Your task to perform on an android device: Open the calendar app, open the side menu, and click the "Day" option Image 0: 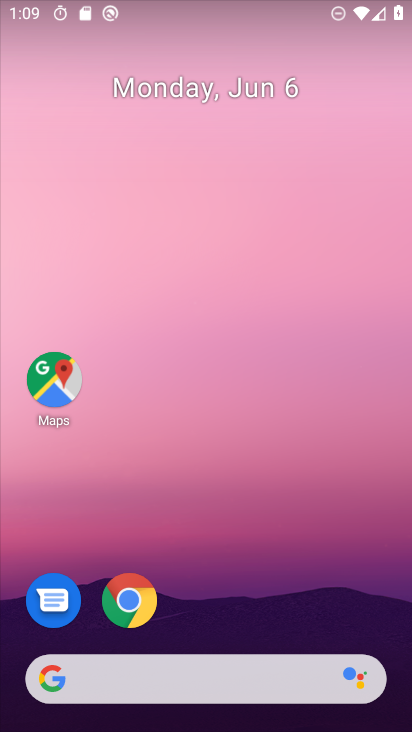
Step 0: drag from (219, 628) to (193, 162)
Your task to perform on an android device: Open the calendar app, open the side menu, and click the "Day" option Image 1: 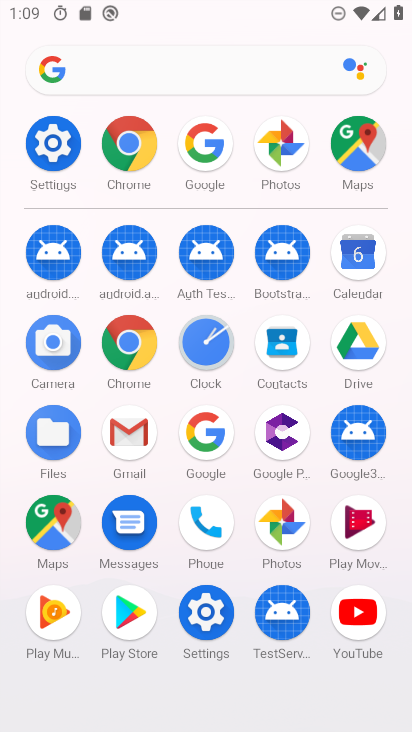
Step 1: click (341, 271)
Your task to perform on an android device: Open the calendar app, open the side menu, and click the "Day" option Image 2: 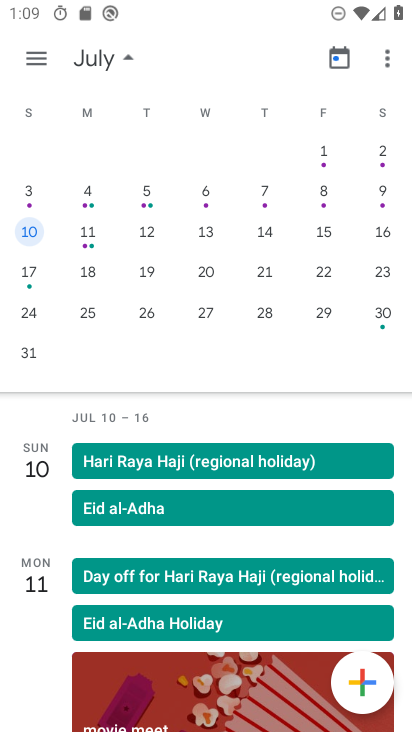
Step 2: click (30, 56)
Your task to perform on an android device: Open the calendar app, open the side menu, and click the "Day" option Image 3: 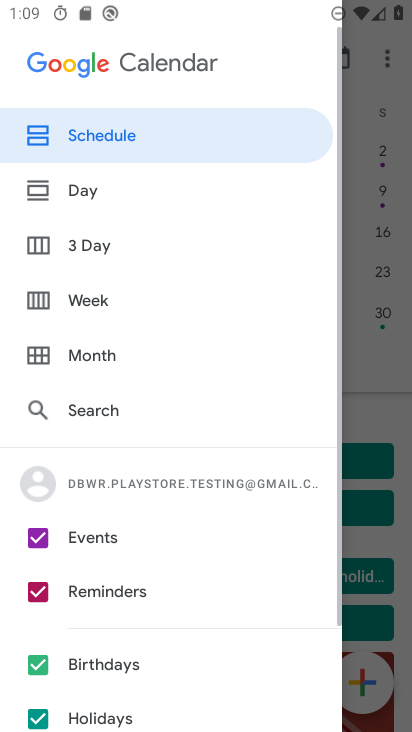
Step 3: click (80, 176)
Your task to perform on an android device: Open the calendar app, open the side menu, and click the "Day" option Image 4: 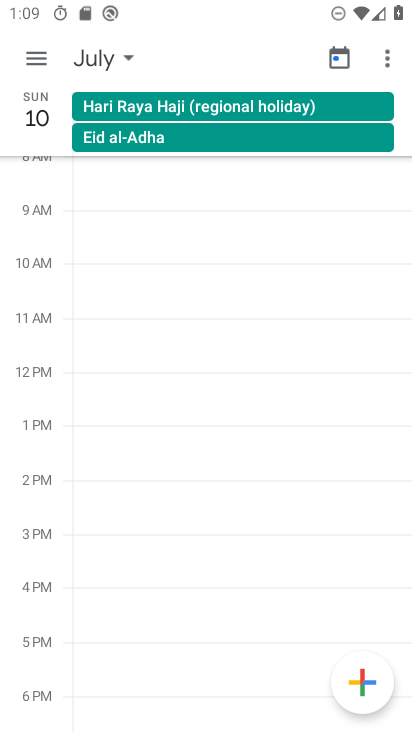
Step 4: task complete